Your task to perform on an android device: Open calendar and show me the first week of next month Image 0: 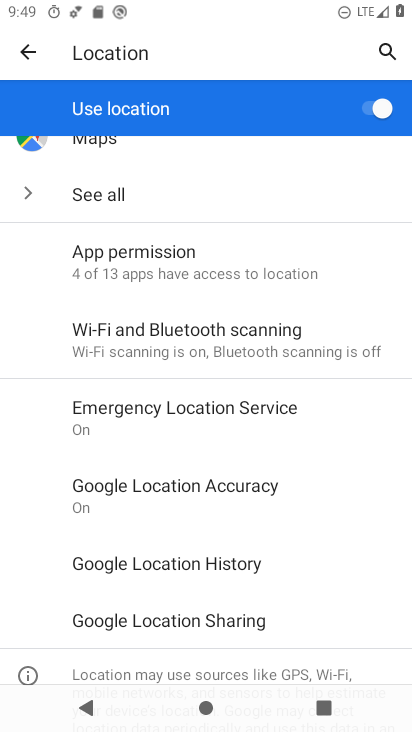
Step 0: press home button
Your task to perform on an android device: Open calendar and show me the first week of next month Image 1: 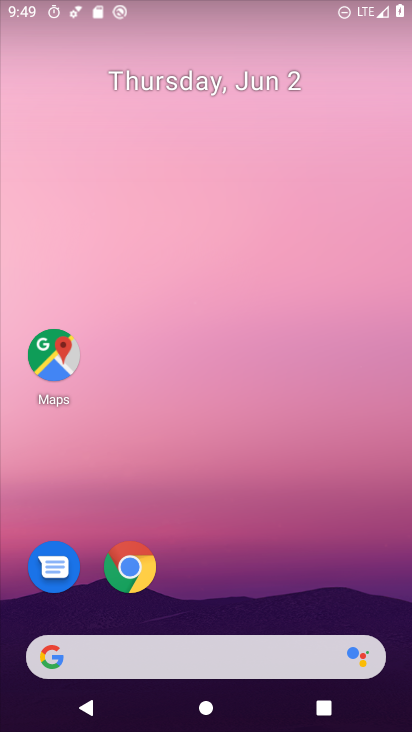
Step 1: drag from (360, 555) to (372, 178)
Your task to perform on an android device: Open calendar and show me the first week of next month Image 2: 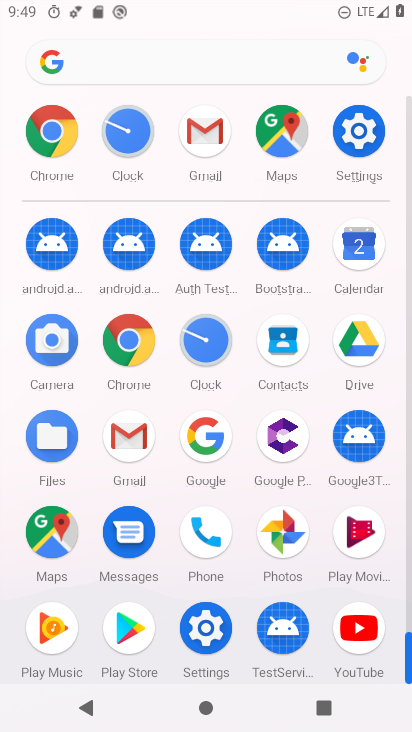
Step 2: click (365, 257)
Your task to perform on an android device: Open calendar and show me the first week of next month Image 3: 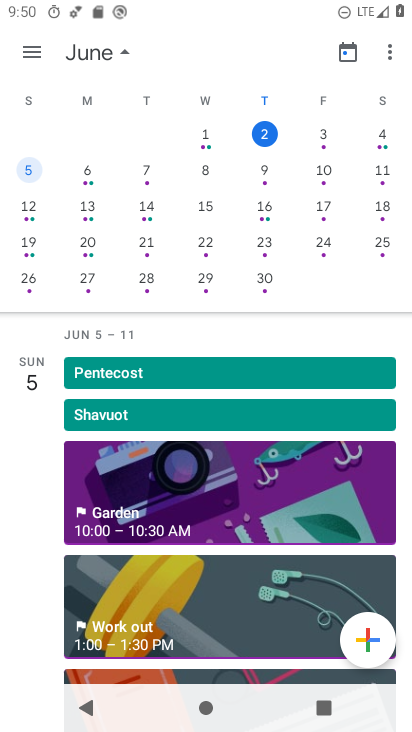
Step 3: click (206, 133)
Your task to perform on an android device: Open calendar and show me the first week of next month Image 4: 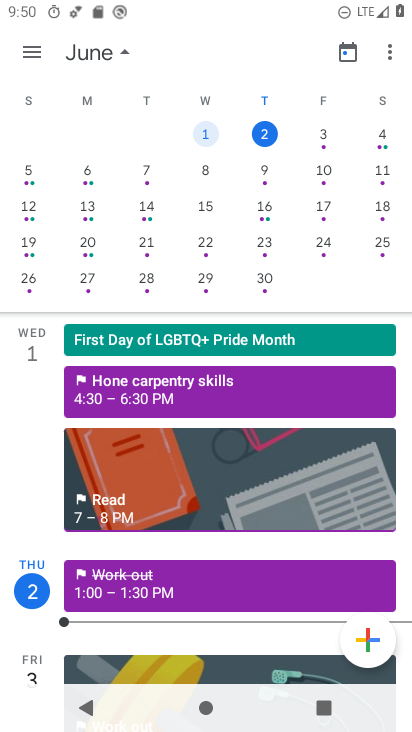
Step 4: drag from (397, 167) to (71, 185)
Your task to perform on an android device: Open calendar and show me the first week of next month Image 5: 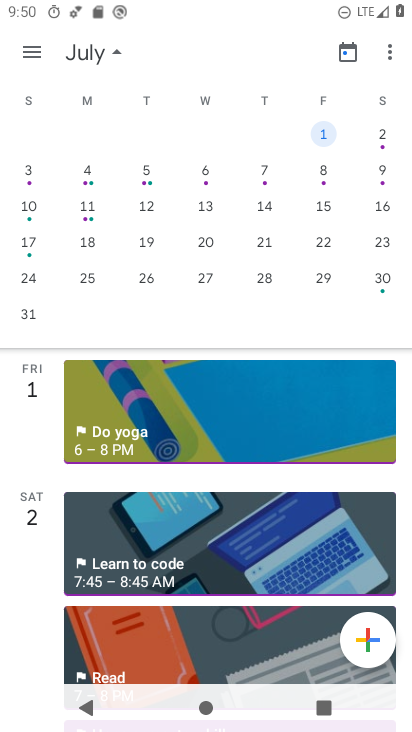
Step 5: click (324, 134)
Your task to perform on an android device: Open calendar and show me the first week of next month Image 6: 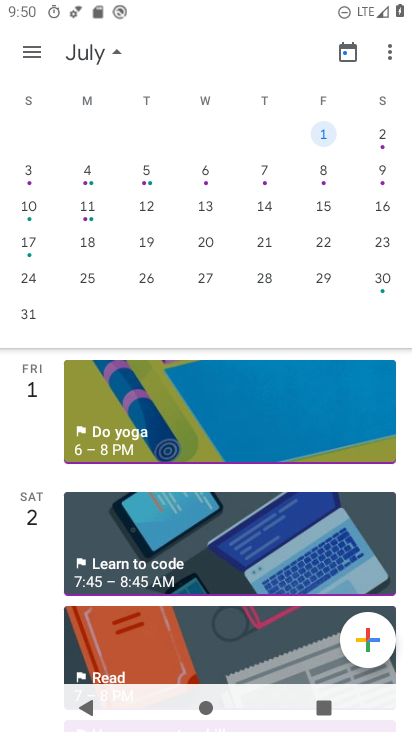
Step 6: task complete